Your task to perform on an android device: Search for seafood restaurants on Google Maps Image 0: 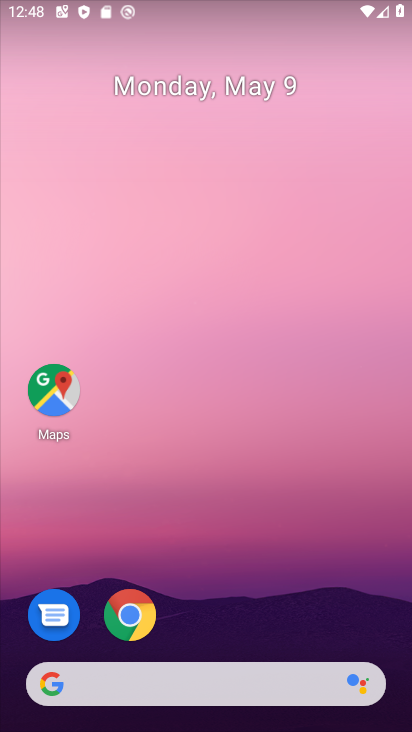
Step 0: click (53, 392)
Your task to perform on an android device: Search for seafood restaurants on Google Maps Image 1: 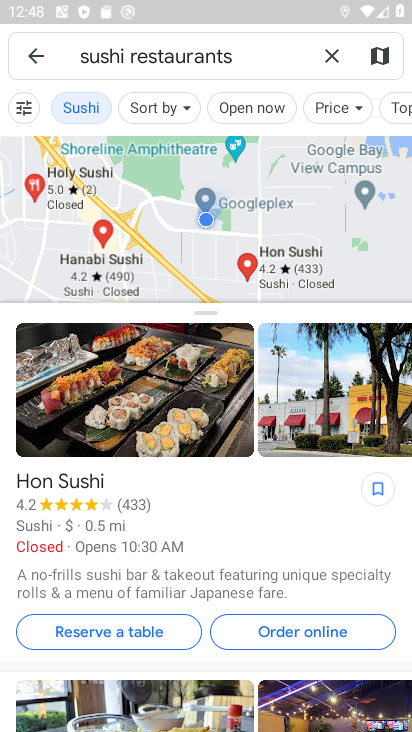
Step 1: click (330, 56)
Your task to perform on an android device: Search for seafood restaurants on Google Maps Image 2: 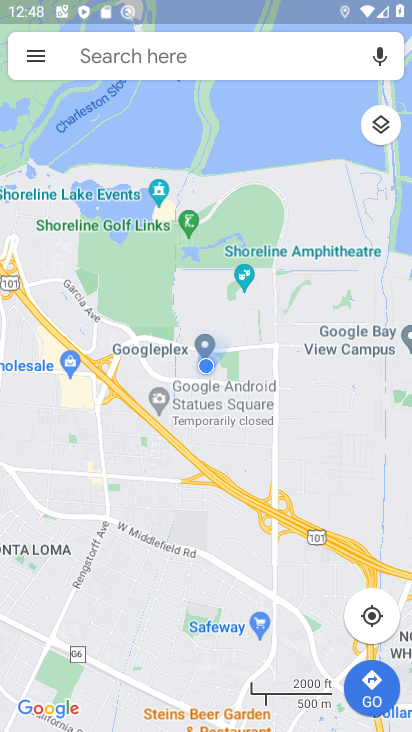
Step 2: click (207, 65)
Your task to perform on an android device: Search for seafood restaurants on Google Maps Image 3: 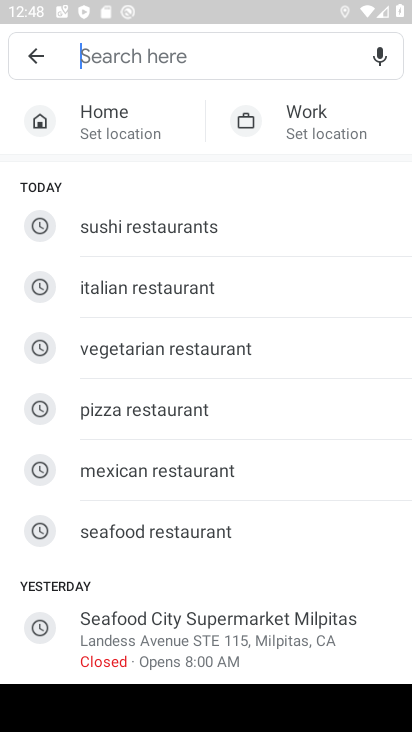
Step 3: type "seafood restaurants"
Your task to perform on an android device: Search for seafood restaurants on Google Maps Image 4: 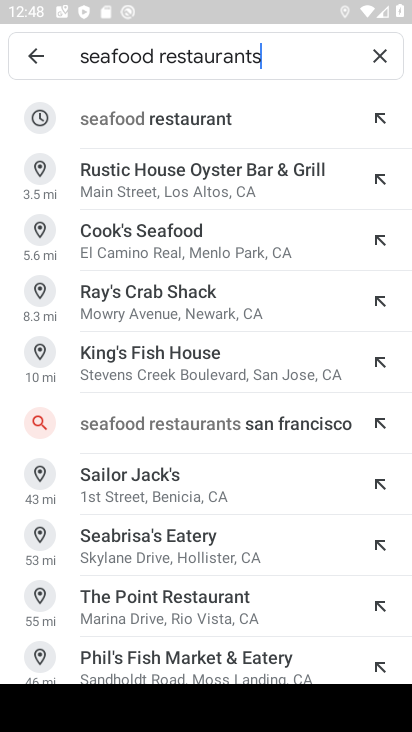
Step 4: click (203, 120)
Your task to perform on an android device: Search for seafood restaurants on Google Maps Image 5: 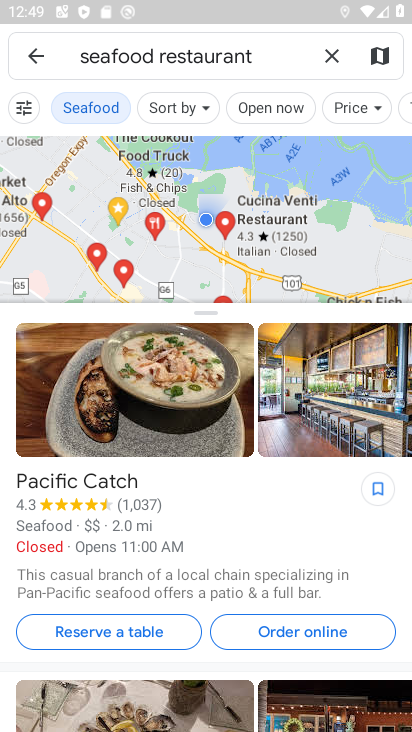
Step 5: task complete